Your task to perform on an android device: clear all cookies in the chrome app Image 0: 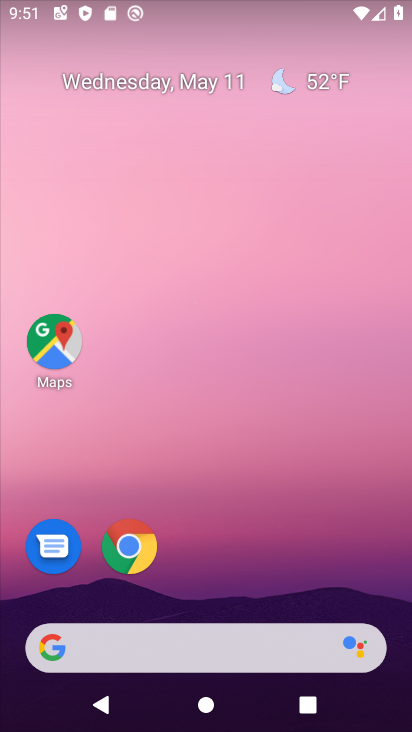
Step 0: click (143, 544)
Your task to perform on an android device: clear all cookies in the chrome app Image 1: 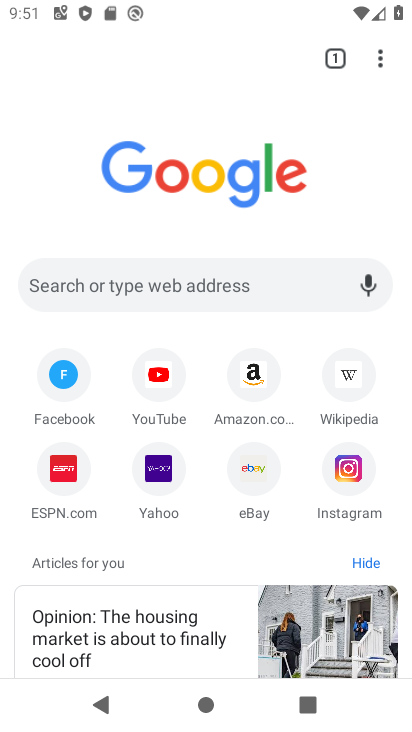
Step 1: drag from (397, 64) to (276, 545)
Your task to perform on an android device: clear all cookies in the chrome app Image 2: 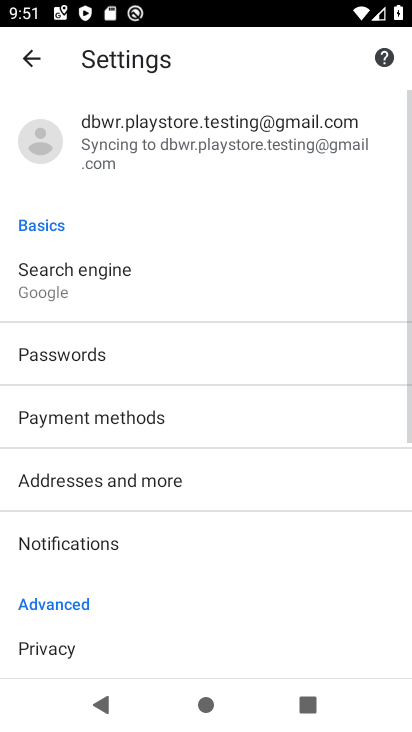
Step 2: drag from (137, 644) to (209, 379)
Your task to perform on an android device: clear all cookies in the chrome app Image 3: 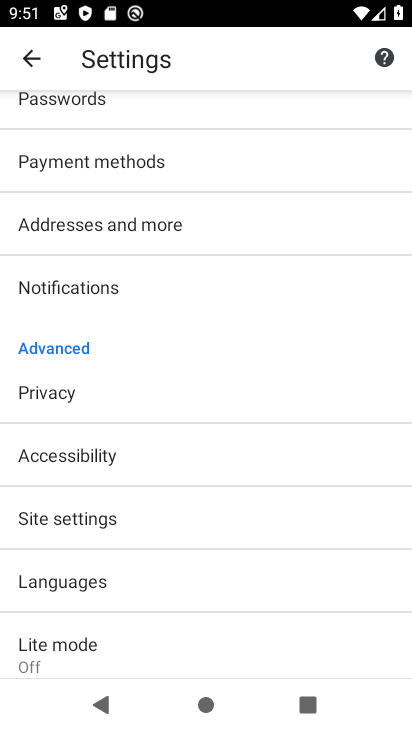
Step 3: click (163, 409)
Your task to perform on an android device: clear all cookies in the chrome app Image 4: 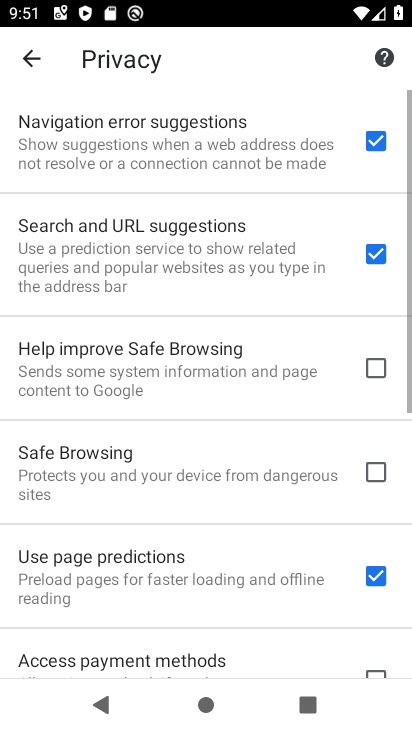
Step 4: drag from (173, 626) to (314, 193)
Your task to perform on an android device: clear all cookies in the chrome app Image 5: 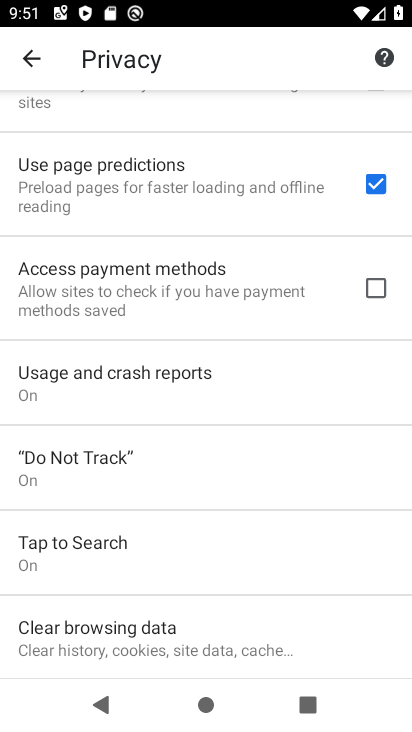
Step 5: click (181, 629)
Your task to perform on an android device: clear all cookies in the chrome app Image 6: 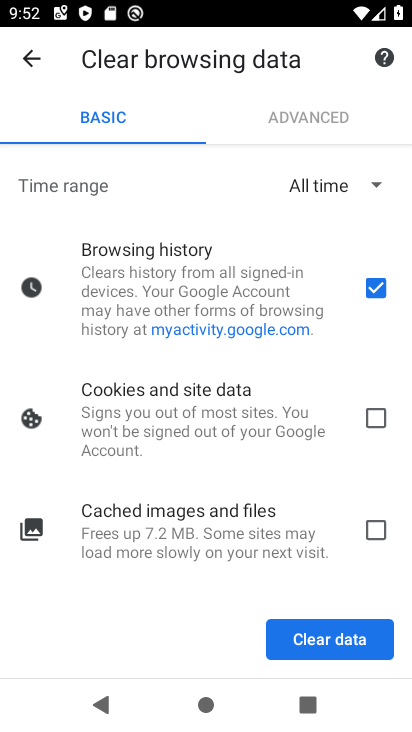
Step 6: click (394, 415)
Your task to perform on an android device: clear all cookies in the chrome app Image 7: 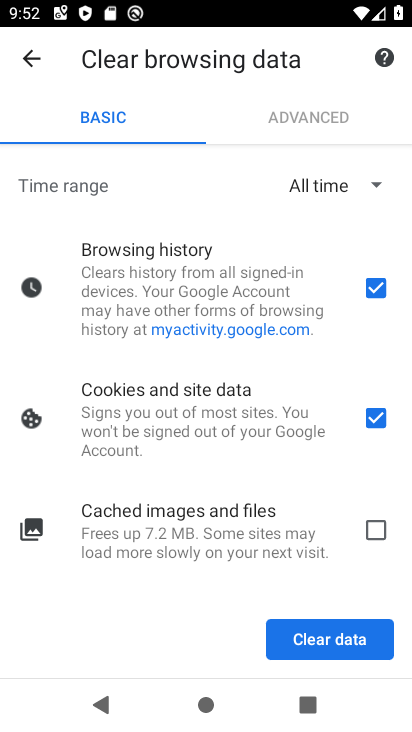
Step 7: click (379, 278)
Your task to perform on an android device: clear all cookies in the chrome app Image 8: 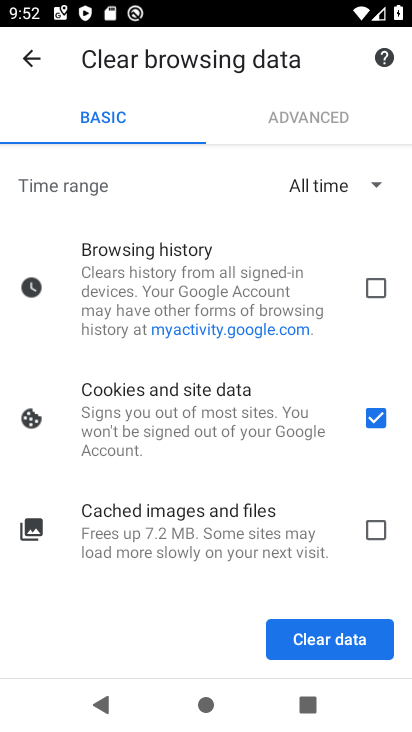
Step 8: click (375, 637)
Your task to perform on an android device: clear all cookies in the chrome app Image 9: 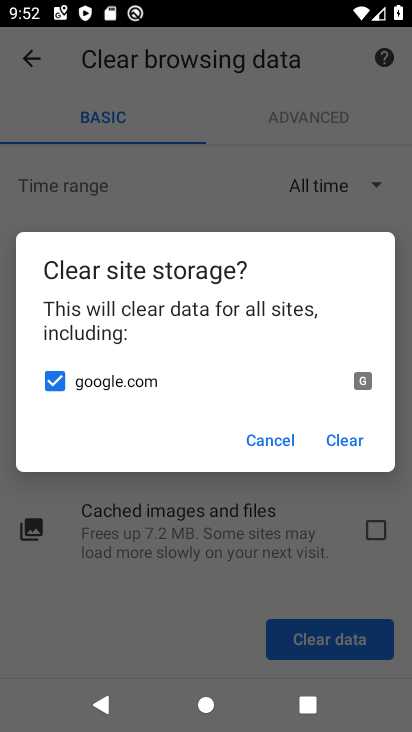
Step 9: click (347, 445)
Your task to perform on an android device: clear all cookies in the chrome app Image 10: 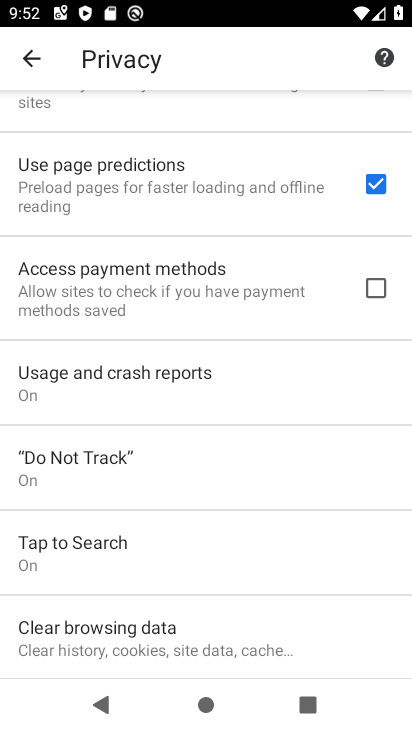
Step 10: task complete